Your task to perform on an android device: turn on translation in the chrome app Image 0: 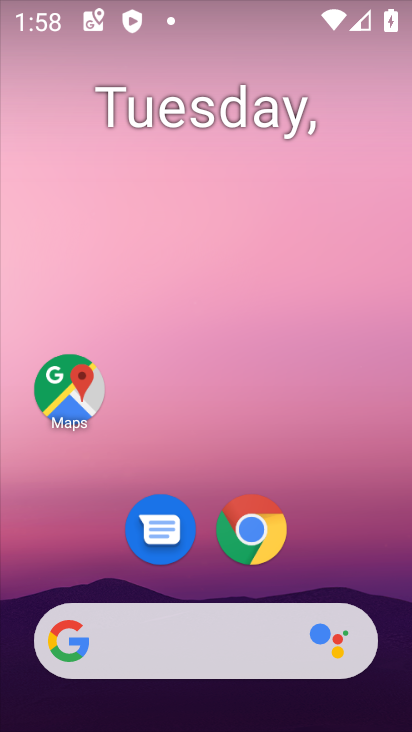
Step 0: click (253, 528)
Your task to perform on an android device: turn on translation in the chrome app Image 1: 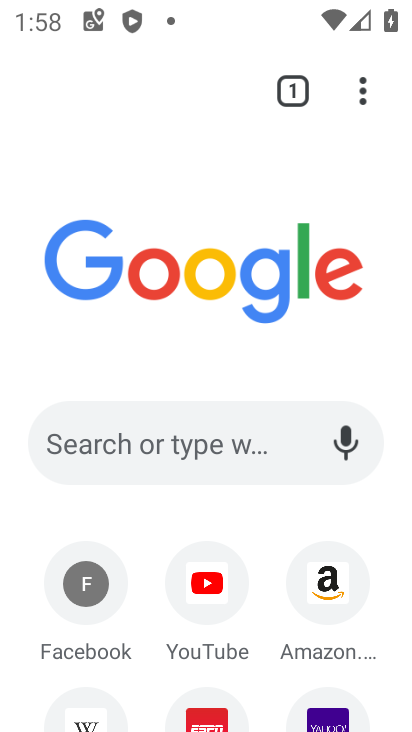
Step 1: click (355, 97)
Your task to perform on an android device: turn on translation in the chrome app Image 2: 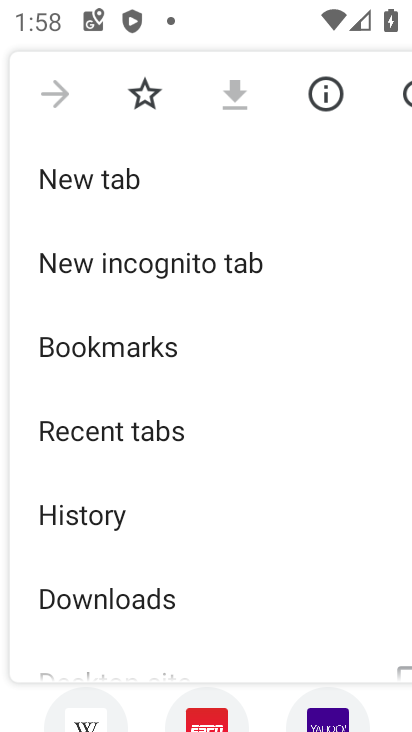
Step 2: drag from (265, 576) to (225, 174)
Your task to perform on an android device: turn on translation in the chrome app Image 3: 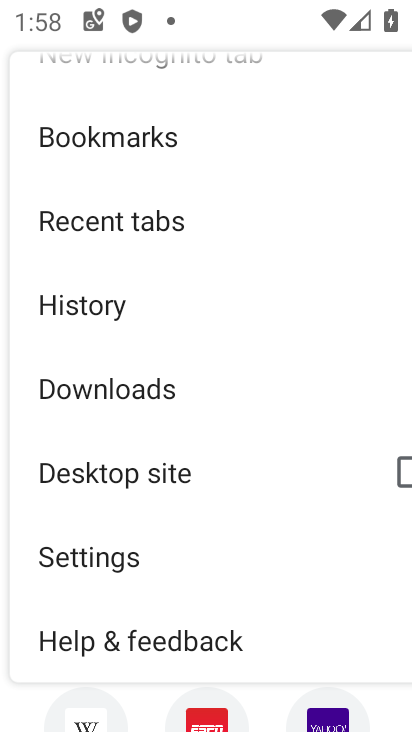
Step 3: drag from (227, 556) to (214, 212)
Your task to perform on an android device: turn on translation in the chrome app Image 4: 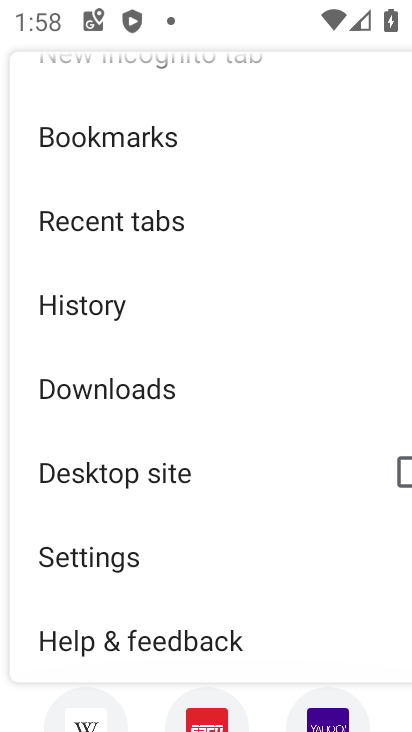
Step 4: click (116, 549)
Your task to perform on an android device: turn on translation in the chrome app Image 5: 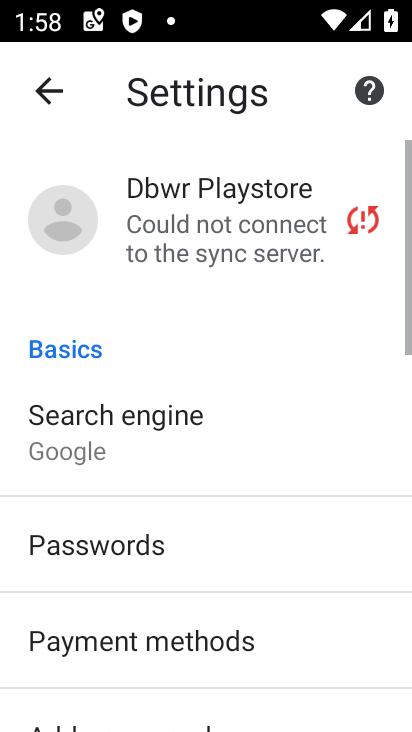
Step 5: drag from (274, 563) to (283, 65)
Your task to perform on an android device: turn on translation in the chrome app Image 6: 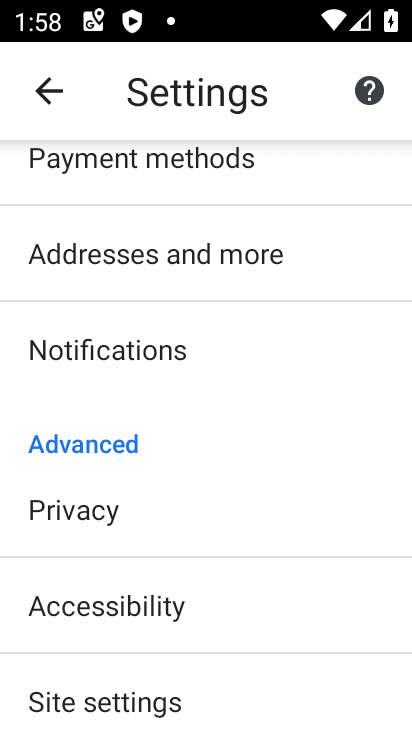
Step 6: drag from (204, 683) to (225, 244)
Your task to perform on an android device: turn on translation in the chrome app Image 7: 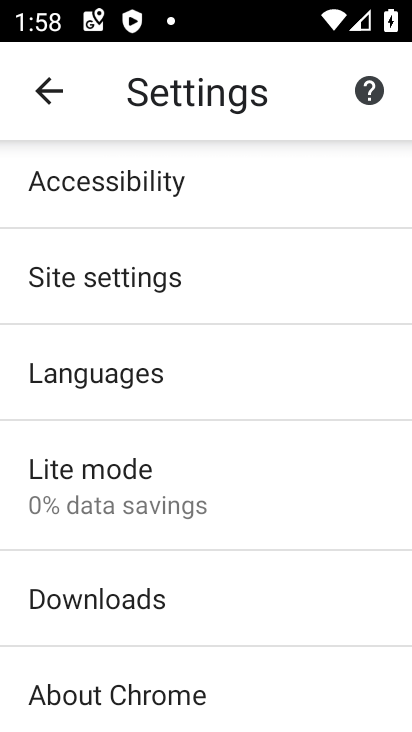
Step 7: click (161, 362)
Your task to perform on an android device: turn on translation in the chrome app Image 8: 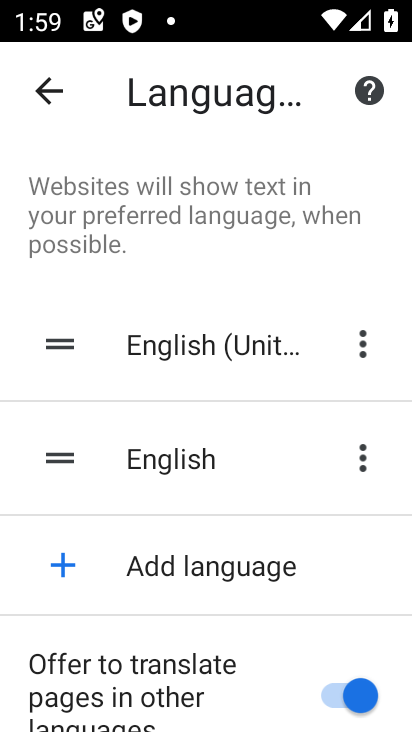
Step 8: task complete